Your task to perform on an android device: turn off location Image 0: 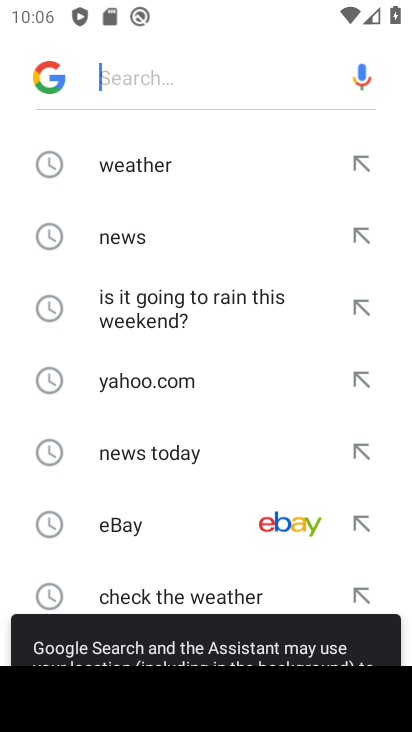
Step 0: press home button
Your task to perform on an android device: turn off location Image 1: 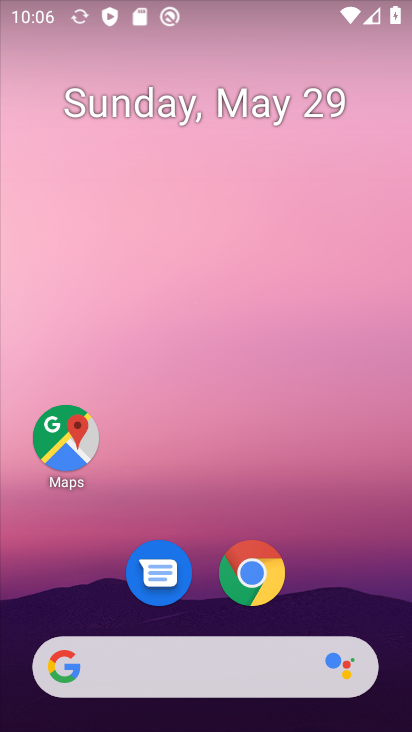
Step 1: drag from (89, 628) to (187, 144)
Your task to perform on an android device: turn off location Image 2: 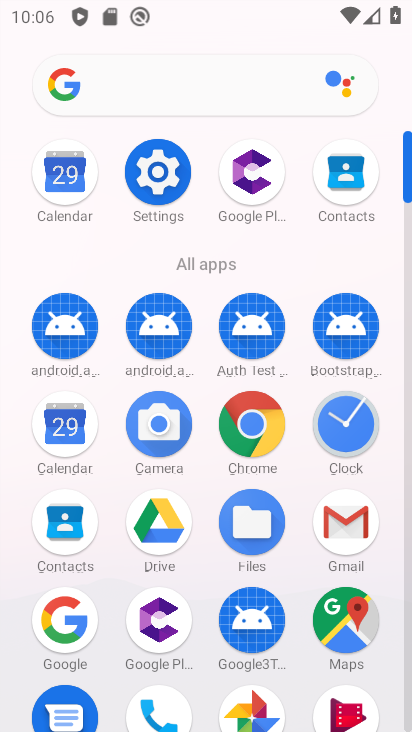
Step 2: drag from (126, 599) to (216, 281)
Your task to perform on an android device: turn off location Image 3: 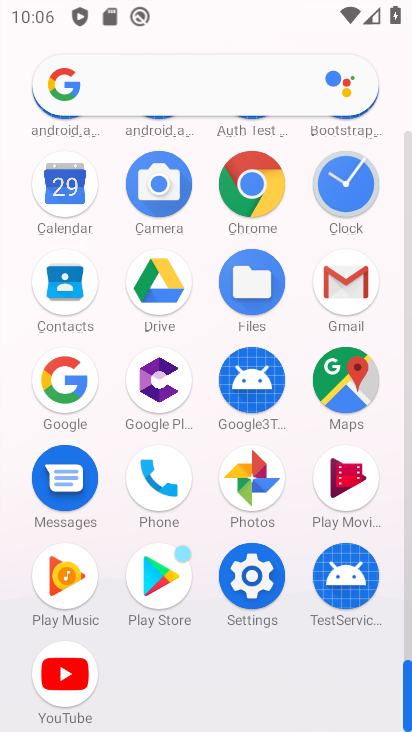
Step 3: click (254, 582)
Your task to perform on an android device: turn off location Image 4: 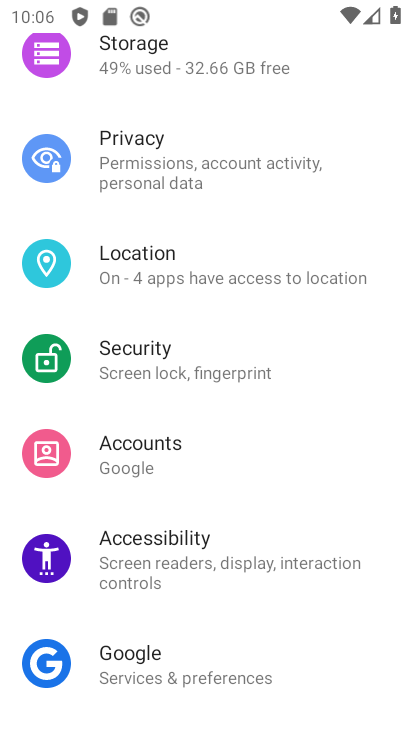
Step 4: click (199, 283)
Your task to perform on an android device: turn off location Image 5: 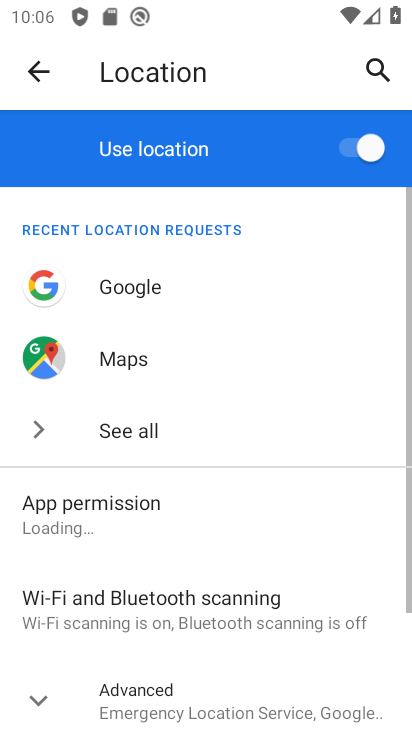
Step 5: click (354, 150)
Your task to perform on an android device: turn off location Image 6: 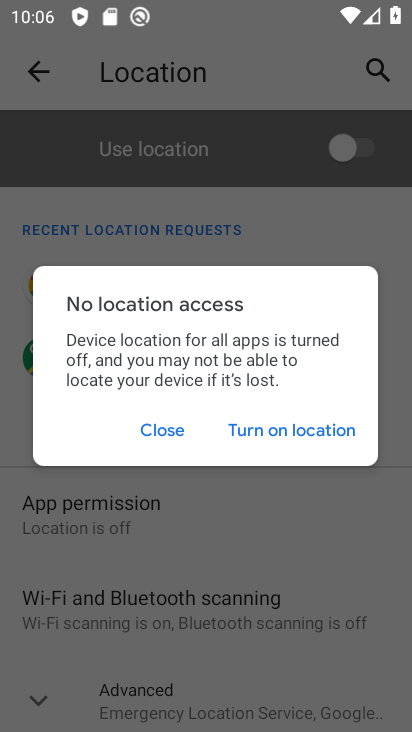
Step 6: task complete